Your task to perform on an android device: open chrome and create a bookmark for the current page Image 0: 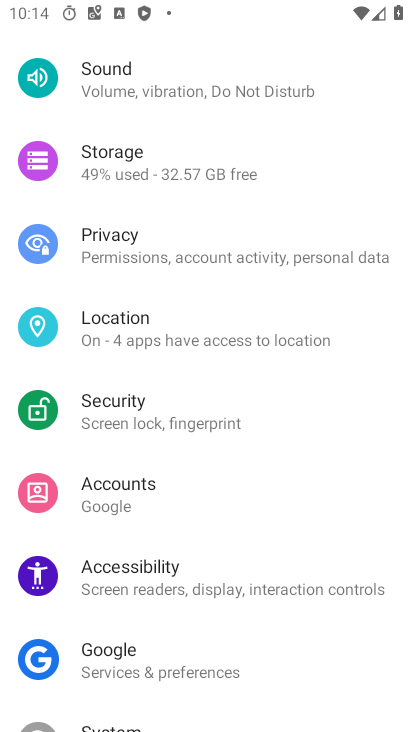
Step 0: press home button
Your task to perform on an android device: open chrome and create a bookmark for the current page Image 1: 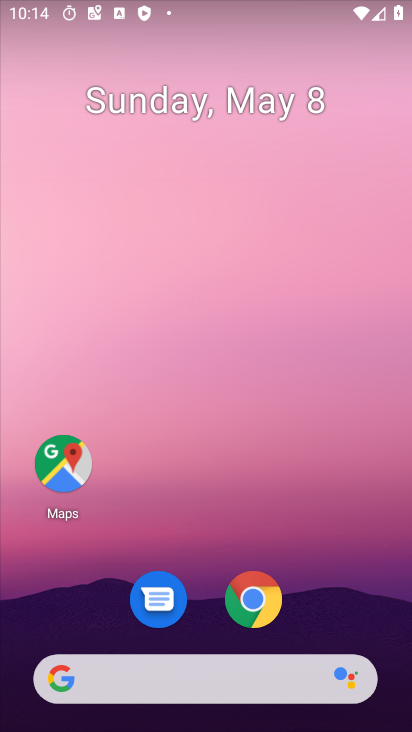
Step 1: drag from (177, 656) to (320, 143)
Your task to perform on an android device: open chrome and create a bookmark for the current page Image 2: 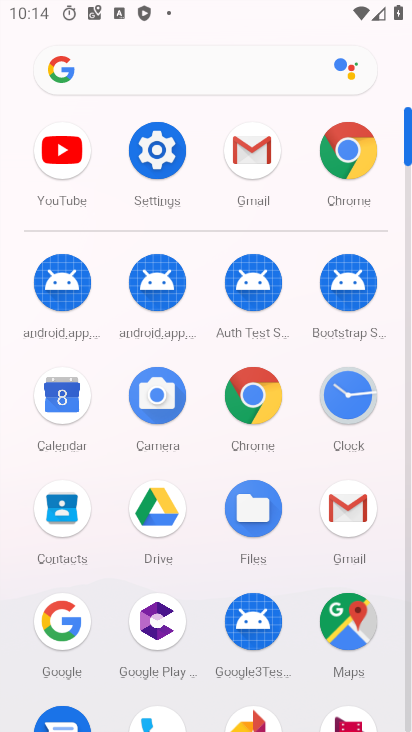
Step 2: drag from (281, 466) to (322, 167)
Your task to perform on an android device: open chrome and create a bookmark for the current page Image 3: 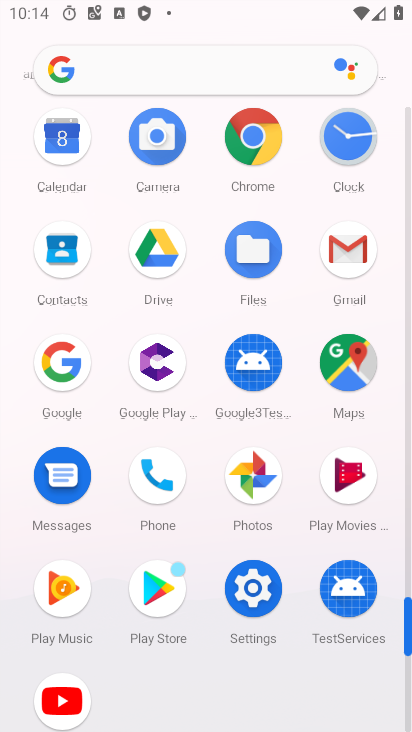
Step 3: click (272, 176)
Your task to perform on an android device: open chrome and create a bookmark for the current page Image 4: 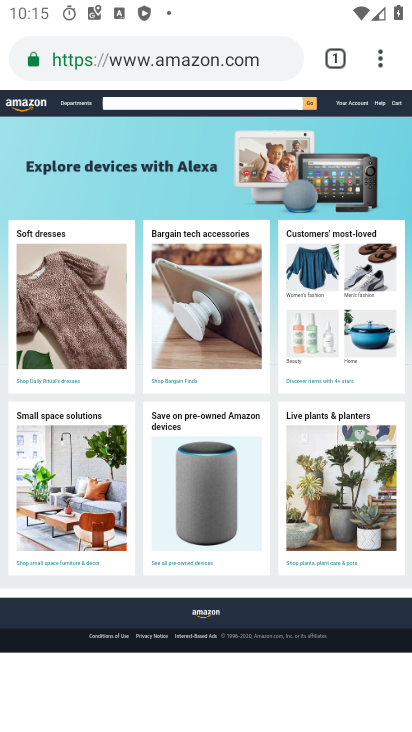
Step 4: drag from (276, 72) to (324, 248)
Your task to perform on an android device: open chrome and create a bookmark for the current page Image 5: 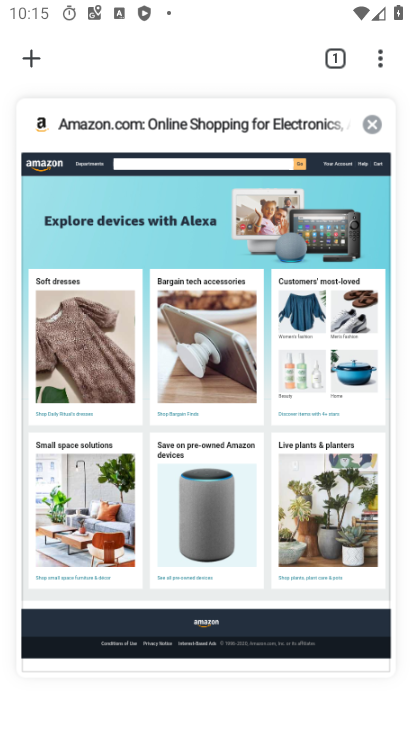
Step 5: click (22, 58)
Your task to perform on an android device: open chrome and create a bookmark for the current page Image 6: 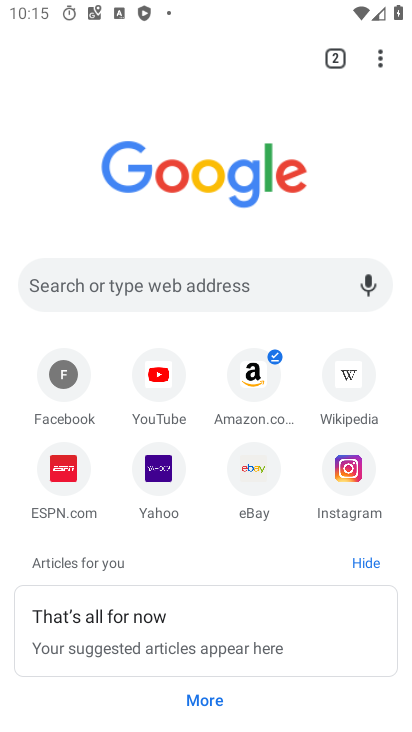
Step 6: click (124, 281)
Your task to perform on an android device: open chrome and create a bookmark for the current page Image 7: 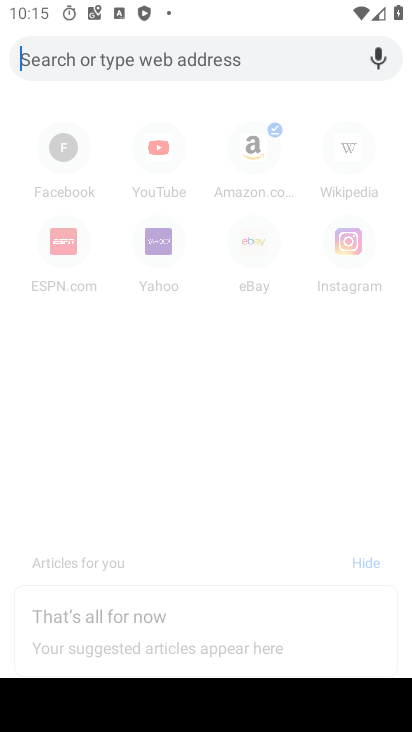
Step 7: type "buyt7u"
Your task to perform on an android device: open chrome and create a bookmark for the current page Image 8: 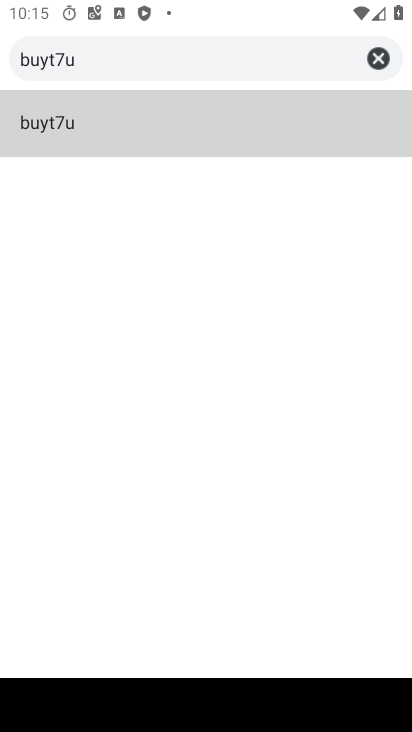
Step 8: click (225, 148)
Your task to perform on an android device: open chrome and create a bookmark for the current page Image 9: 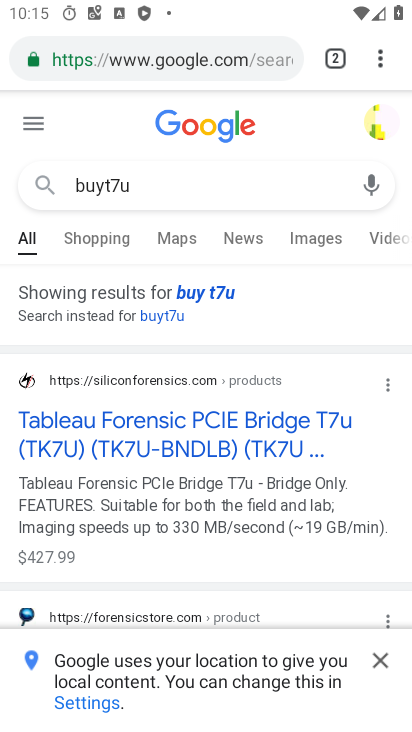
Step 9: click (133, 439)
Your task to perform on an android device: open chrome and create a bookmark for the current page Image 10: 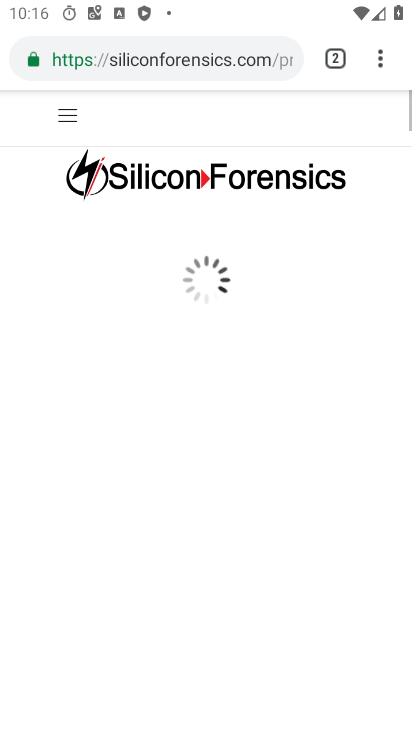
Step 10: click (380, 56)
Your task to perform on an android device: open chrome and create a bookmark for the current page Image 11: 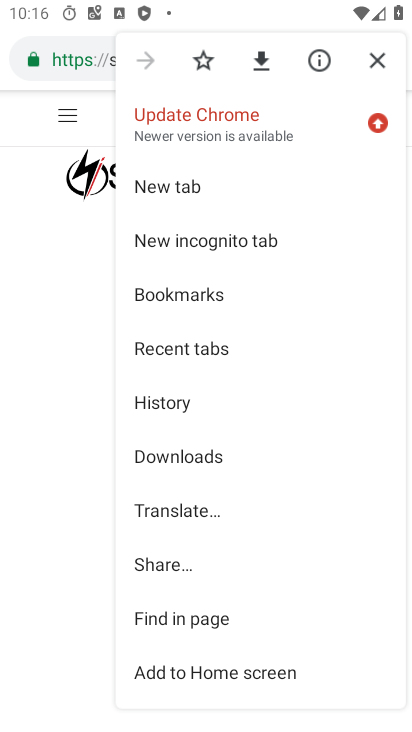
Step 11: click (202, 62)
Your task to perform on an android device: open chrome and create a bookmark for the current page Image 12: 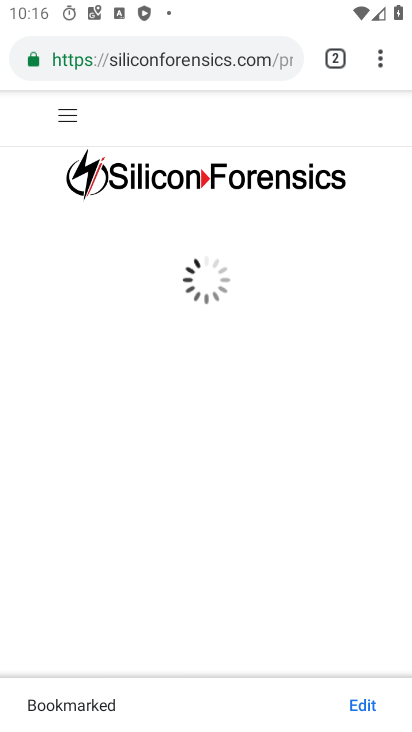
Step 12: task complete